Your task to perform on an android device: Open Chrome and go to settings Image 0: 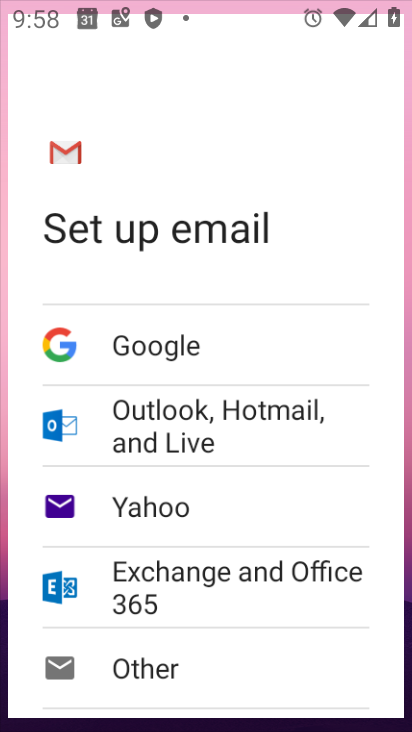
Step 0: drag from (371, 643) to (270, 86)
Your task to perform on an android device: Open Chrome and go to settings Image 1: 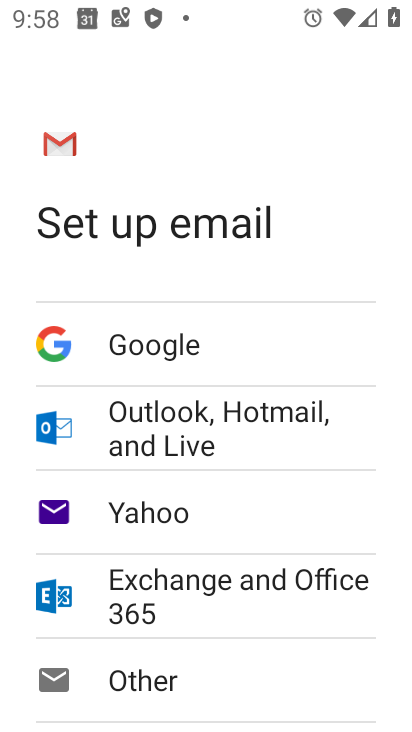
Step 1: press back button
Your task to perform on an android device: Open Chrome and go to settings Image 2: 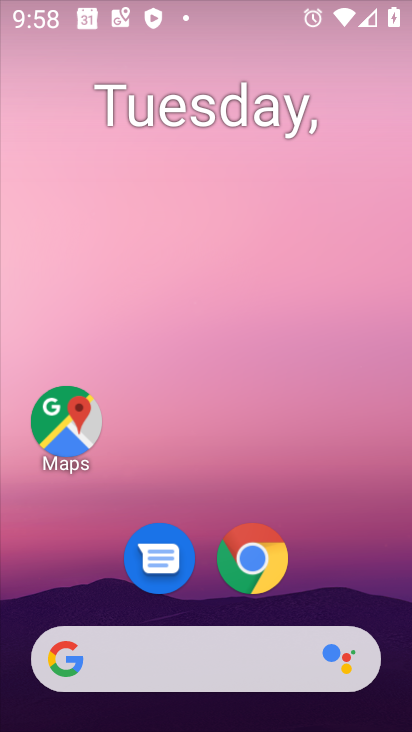
Step 2: drag from (314, 600) to (96, 63)
Your task to perform on an android device: Open Chrome and go to settings Image 3: 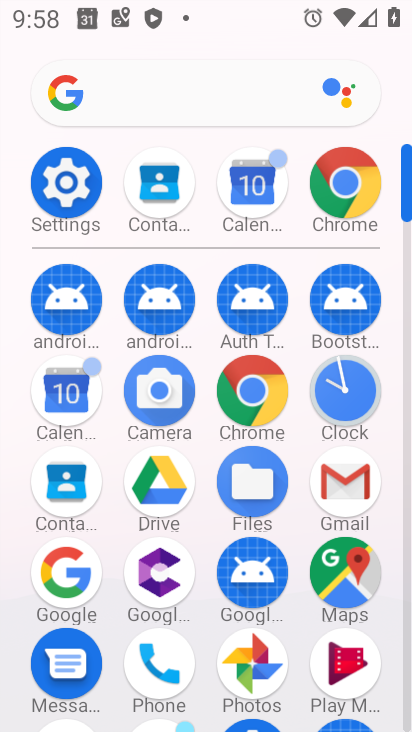
Step 3: click (51, 182)
Your task to perform on an android device: Open Chrome and go to settings Image 4: 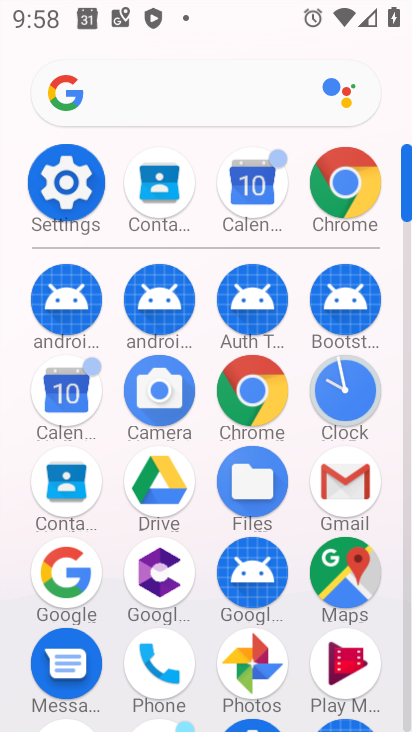
Step 4: click (55, 186)
Your task to perform on an android device: Open Chrome and go to settings Image 5: 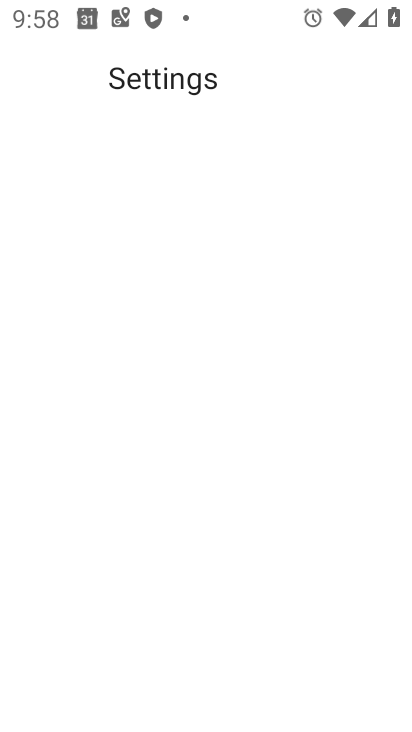
Step 5: click (55, 186)
Your task to perform on an android device: Open Chrome and go to settings Image 6: 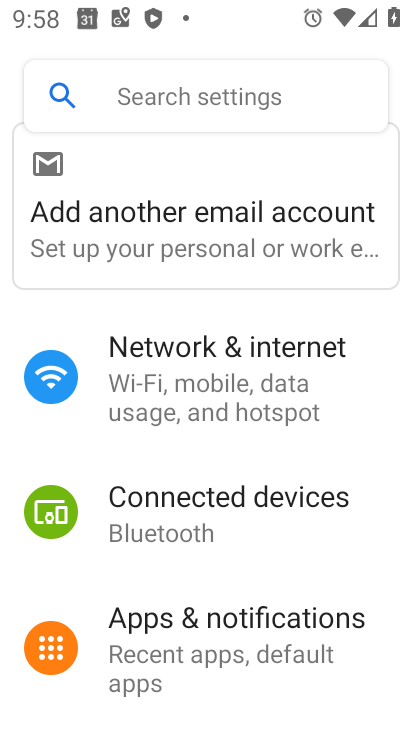
Step 6: drag from (268, 636) to (189, 297)
Your task to perform on an android device: Open Chrome and go to settings Image 7: 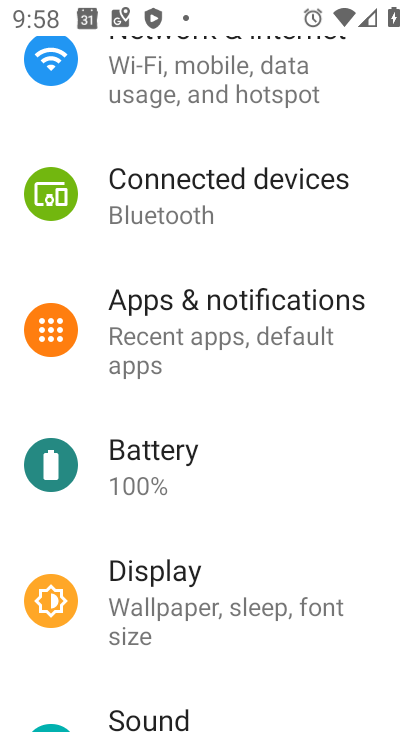
Step 7: drag from (251, 574) to (195, 155)
Your task to perform on an android device: Open Chrome and go to settings Image 8: 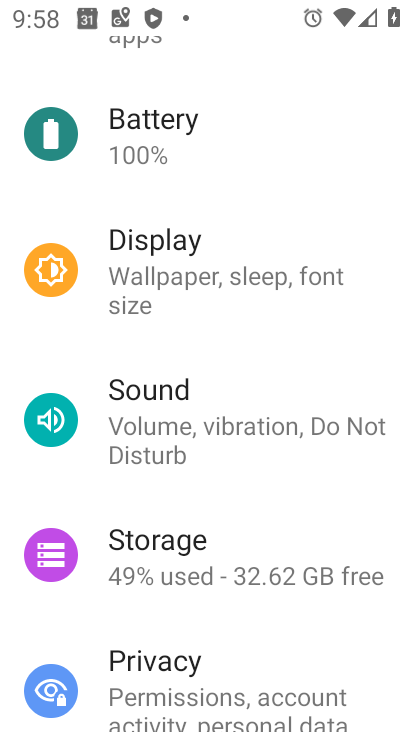
Step 8: press back button
Your task to perform on an android device: Open Chrome and go to settings Image 9: 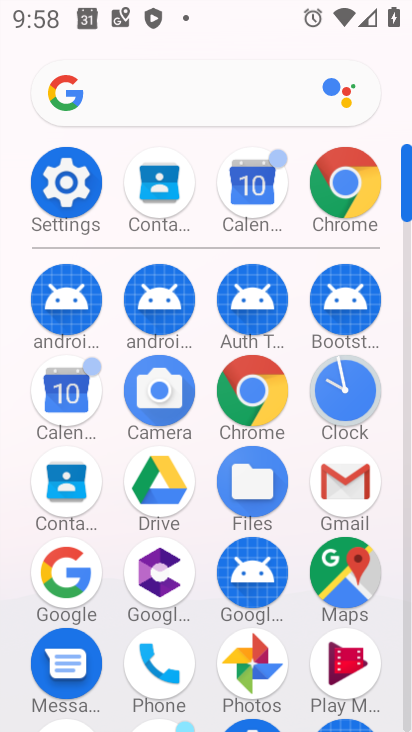
Step 9: click (344, 186)
Your task to perform on an android device: Open Chrome and go to settings Image 10: 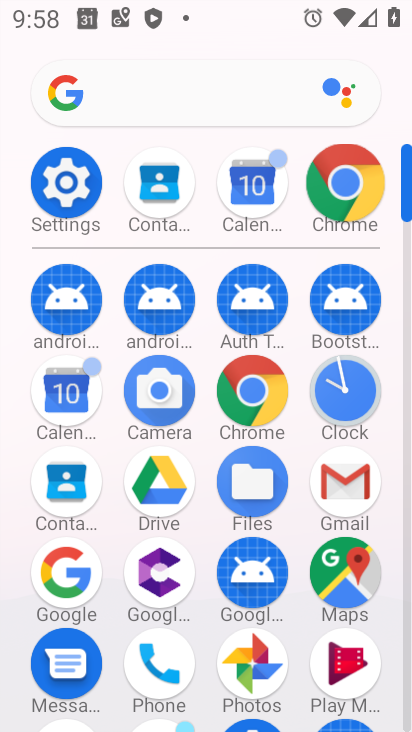
Step 10: click (344, 186)
Your task to perform on an android device: Open Chrome and go to settings Image 11: 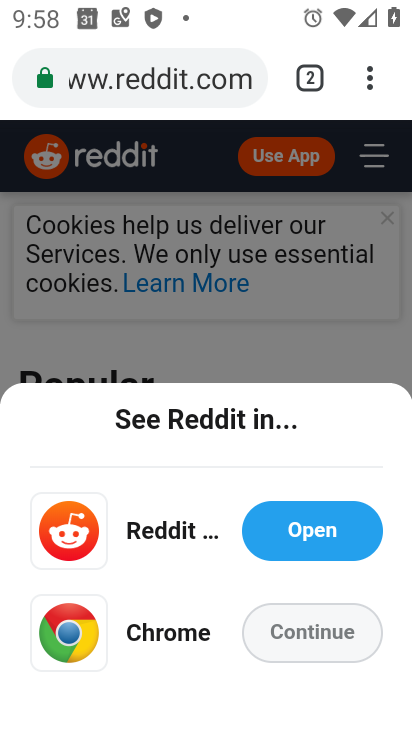
Step 11: drag from (374, 81) to (97, 619)
Your task to perform on an android device: Open Chrome and go to settings Image 12: 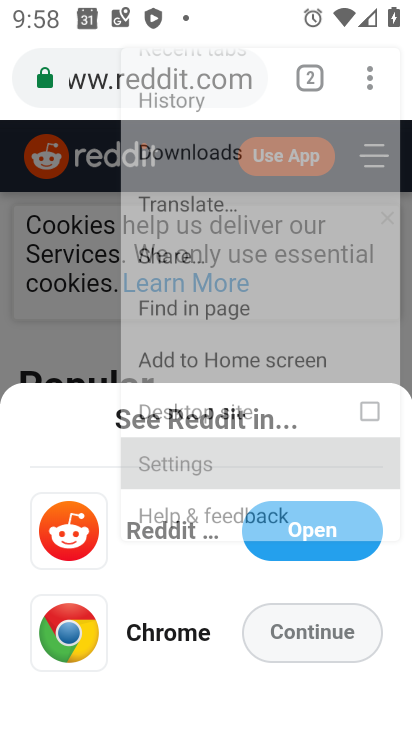
Step 12: click (98, 614)
Your task to perform on an android device: Open Chrome and go to settings Image 13: 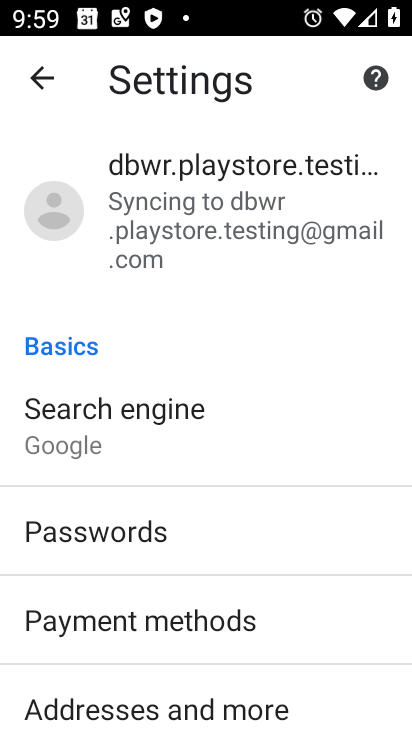
Step 13: task complete